Your task to perform on an android device: What is the news today? Image 0: 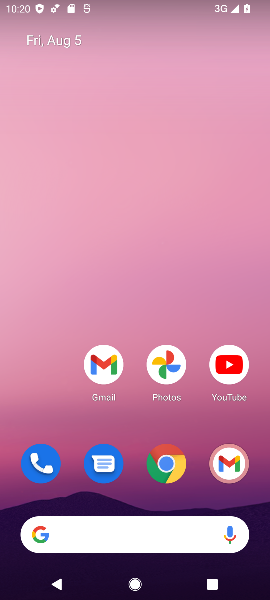
Step 0: click (158, 469)
Your task to perform on an android device: What is the news today? Image 1: 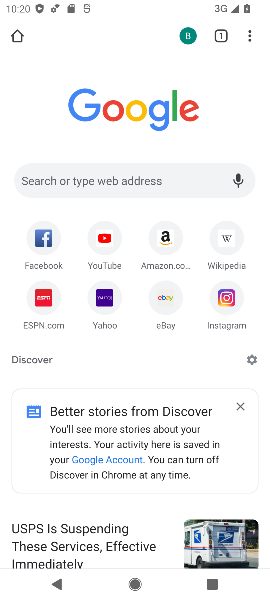
Step 1: click (113, 175)
Your task to perform on an android device: What is the news today? Image 2: 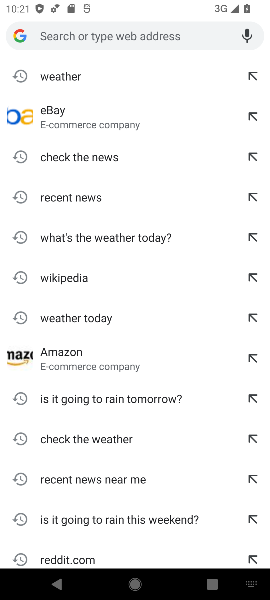
Step 2: type "What is the news today? "
Your task to perform on an android device: What is the news today? Image 3: 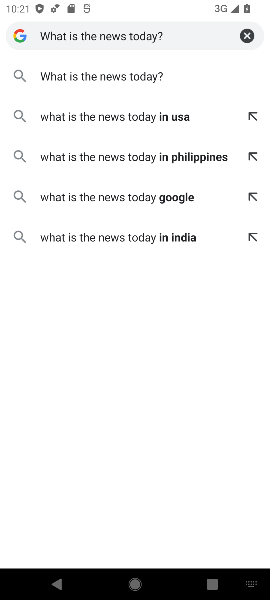
Step 3: click (62, 83)
Your task to perform on an android device: What is the news today? Image 4: 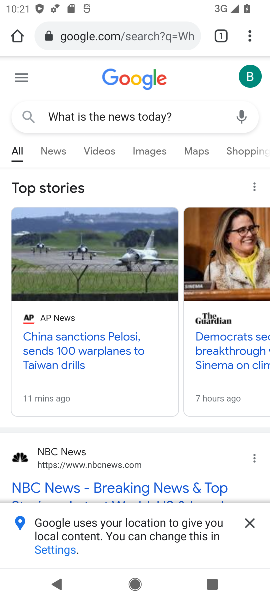
Step 4: task complete